Your task to perform on an android device: Open notification settings Image 0: 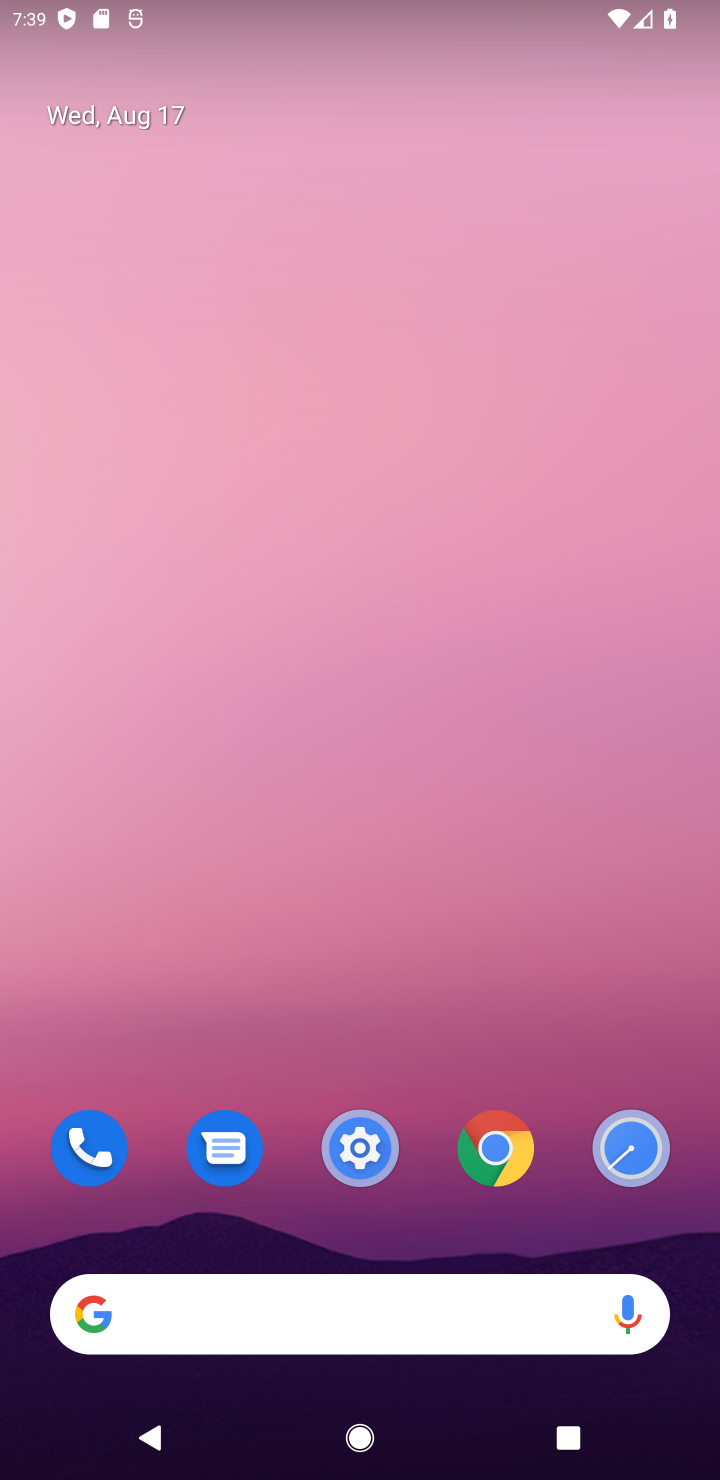
Step 0: drag from (419, 1232) to (416, 275)
Your task to perform on an android device: Open notification settings Image 1: 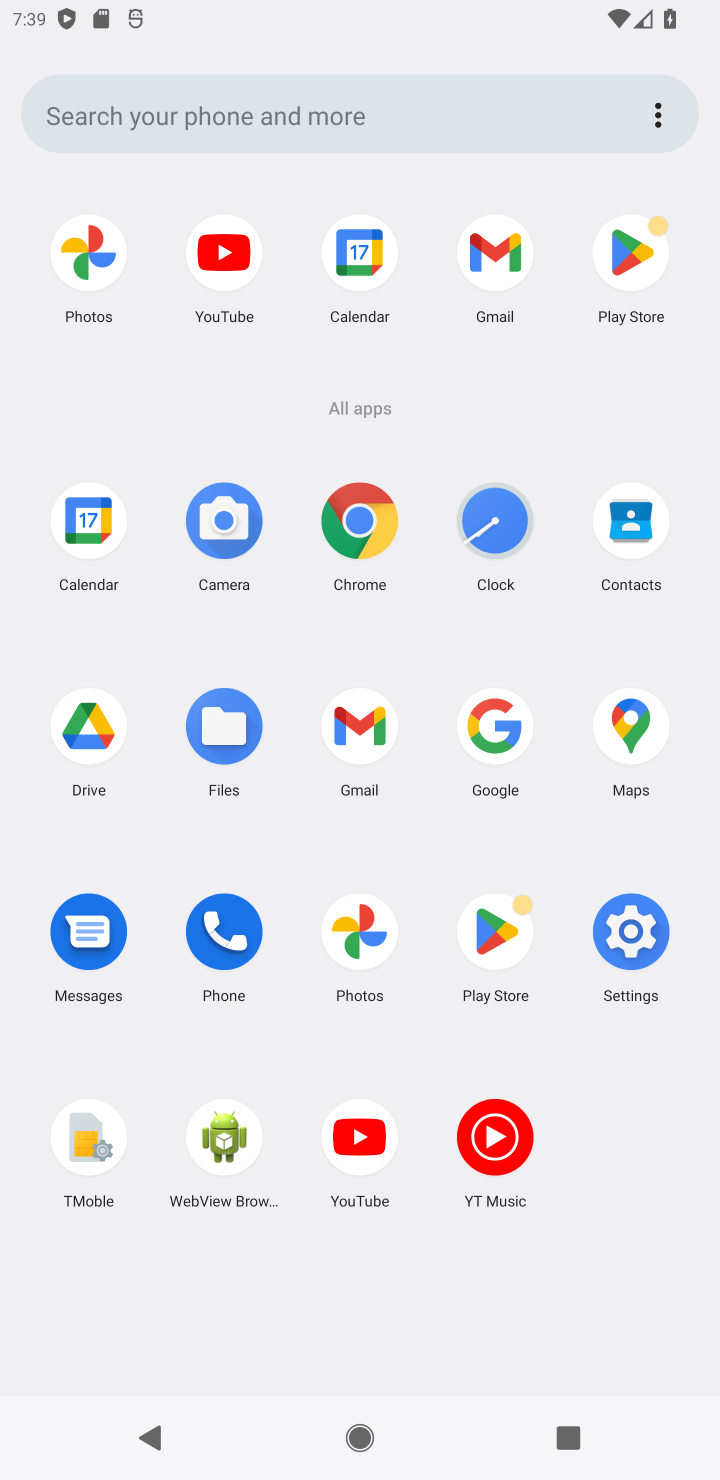
Step 1: click (625, 933)
Your task to perform on an android device: Open notification settings Image 2: 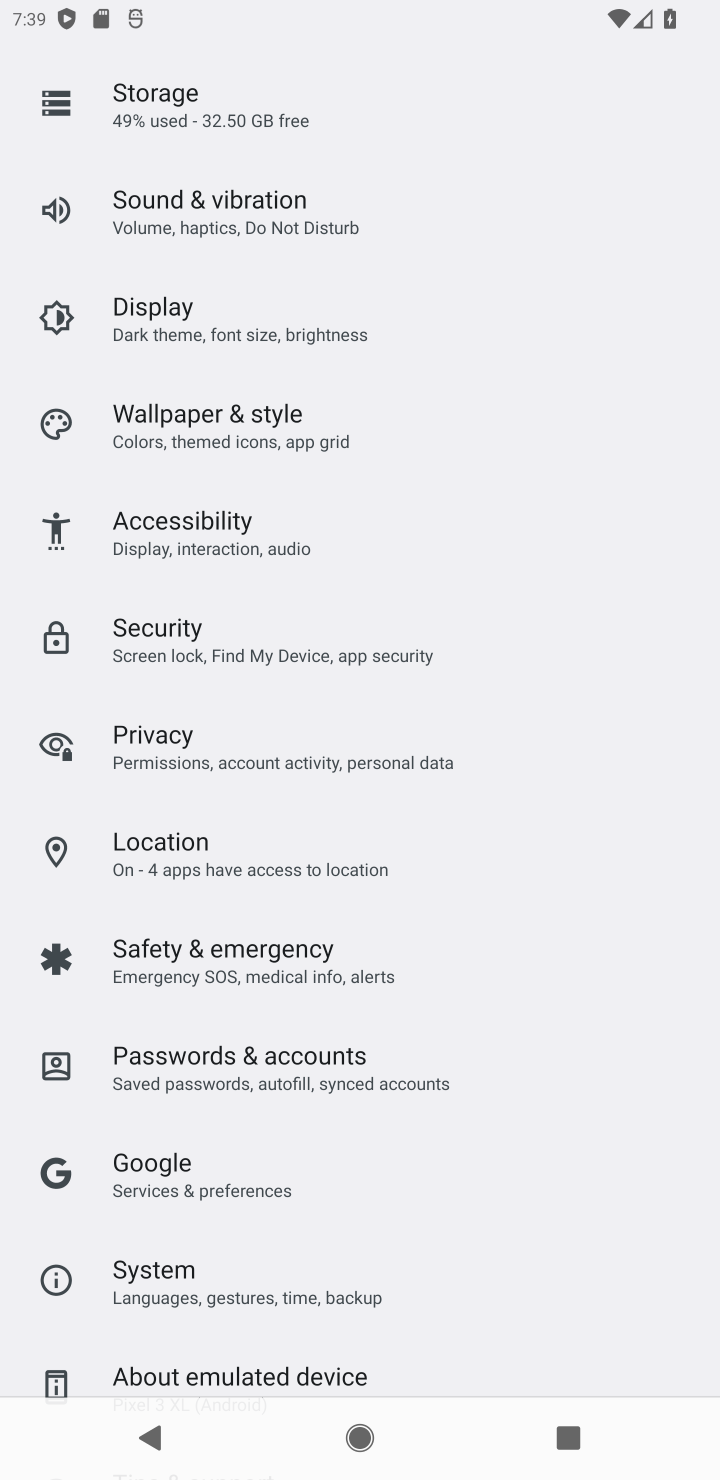
Step 2: drag from (199, 116) to (203, 811)
Your task to perform on an android device: Open notification settings Image 3: 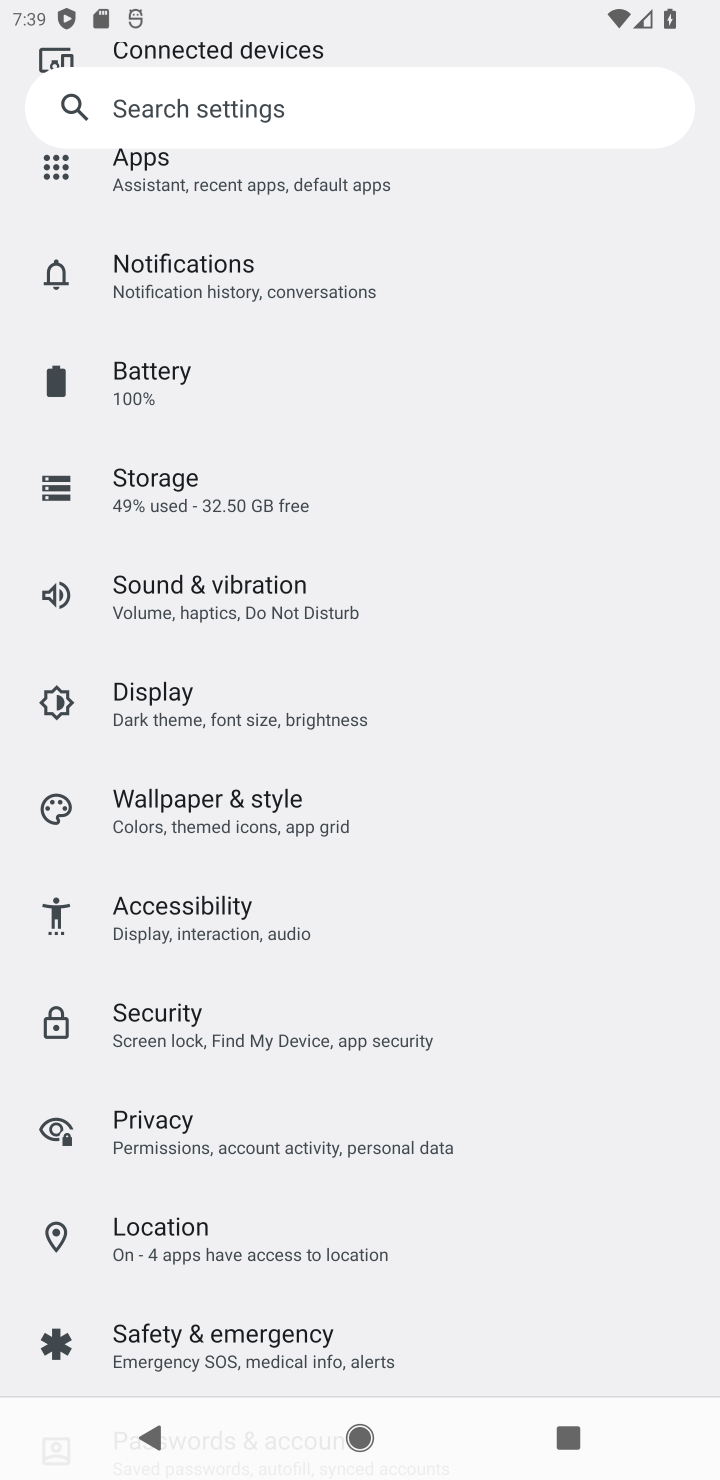
Step 3: drag from (233, 162) to (235, 786)
Your task to perform on an android device: Open notification settings Image 4: 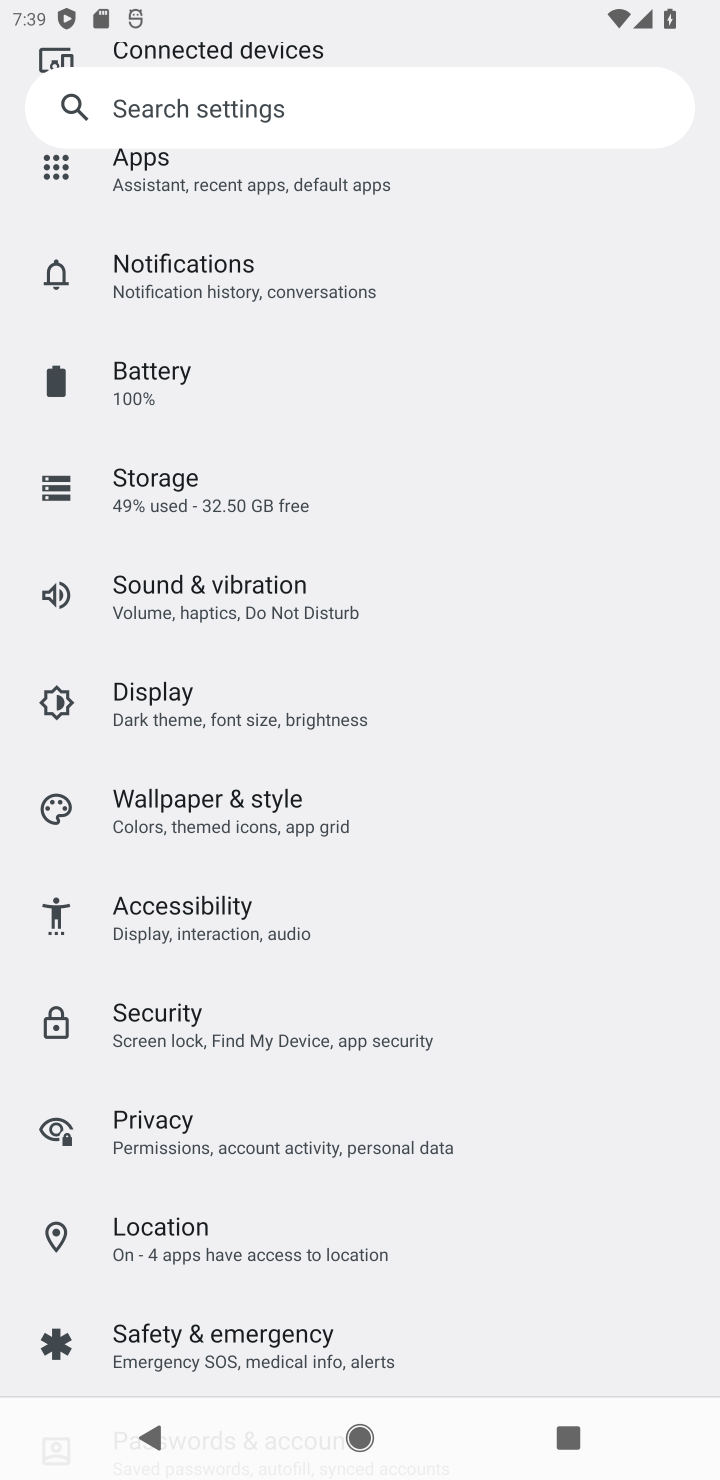
Step 4: click (179, 257)
Your task to perform on an android device: Open notification settings Image 5: 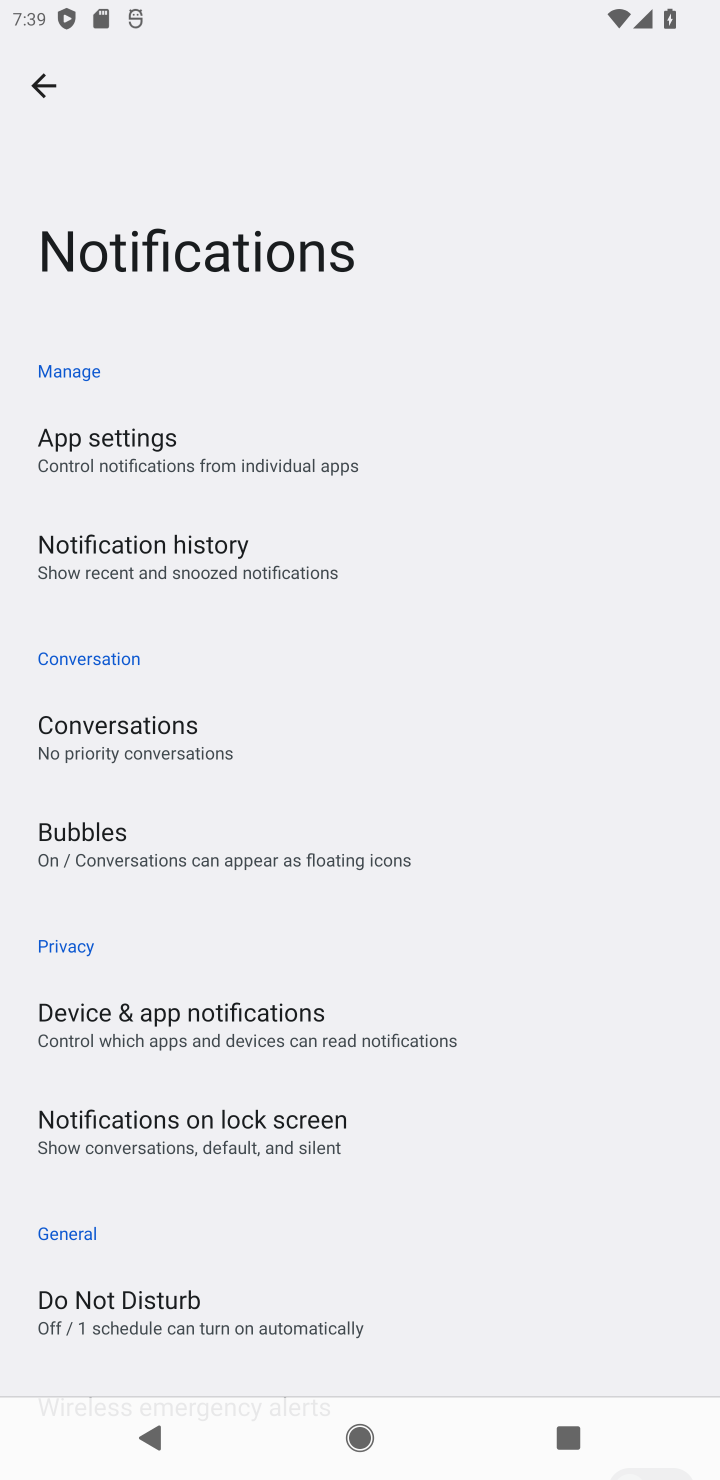
Step 5: task complete